Your task to perform on an android device: open sync settings in chrome Image 0: 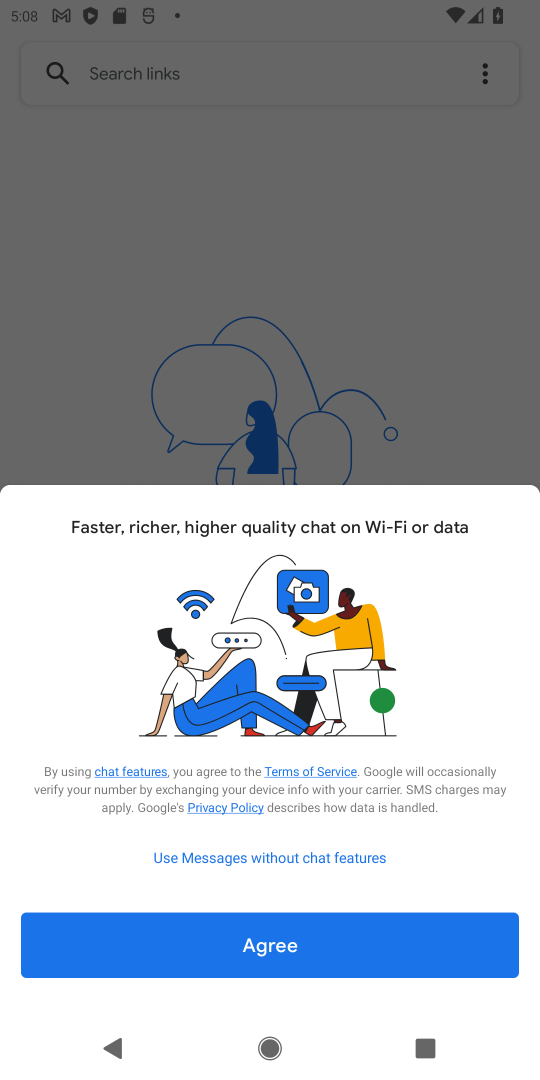
Step 0: press home button
Your task to perform on an android device: open sync settings in chrome Image 1: 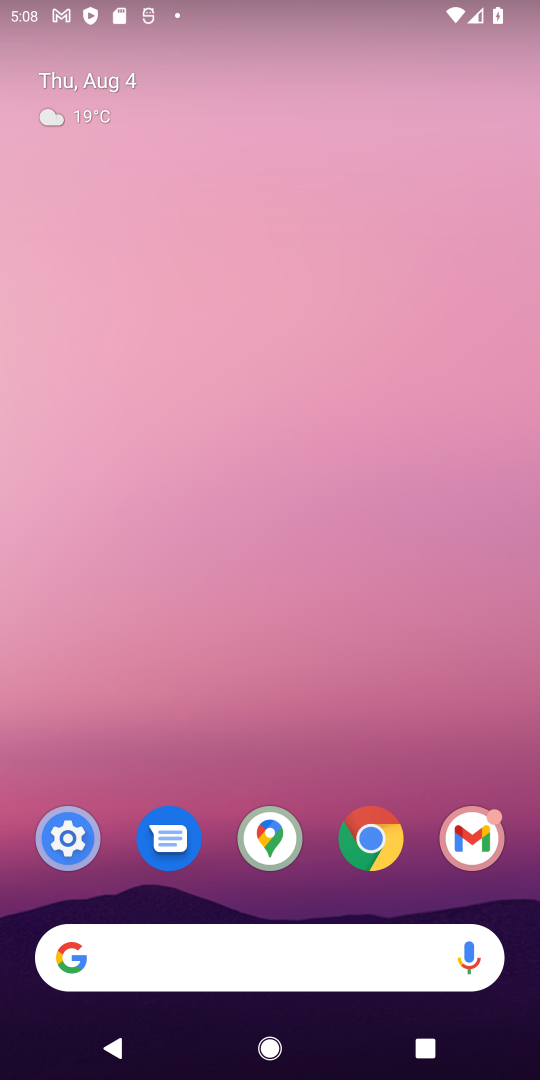
Step 1: drag from (246, 820) to (339, 38)
Your task to perform on an android device: open sync settings in chrome Image 2: 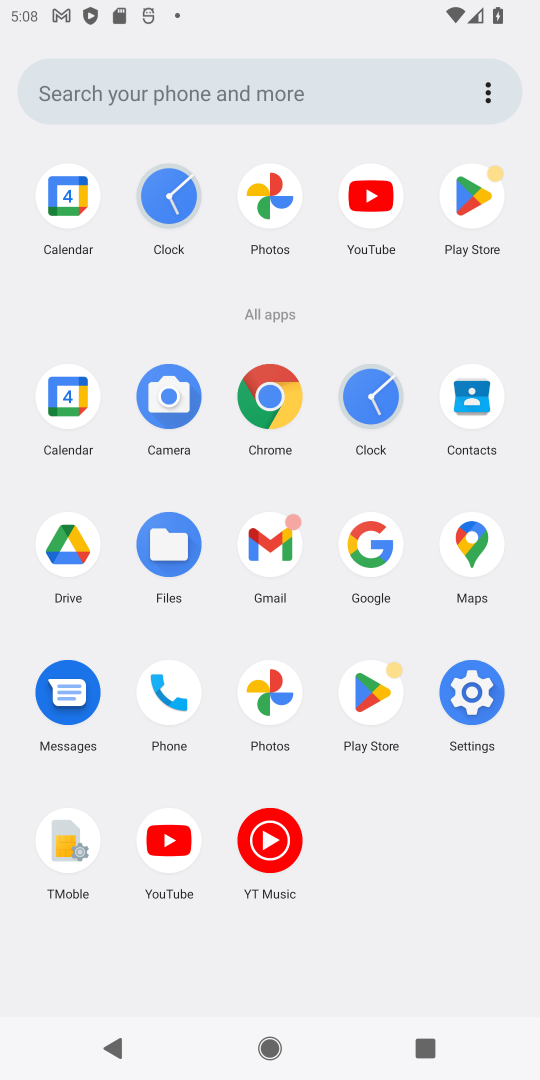
Step 2: click (263, 431)
Your task to perform on an android device: open sync settings in chrome Image 3: 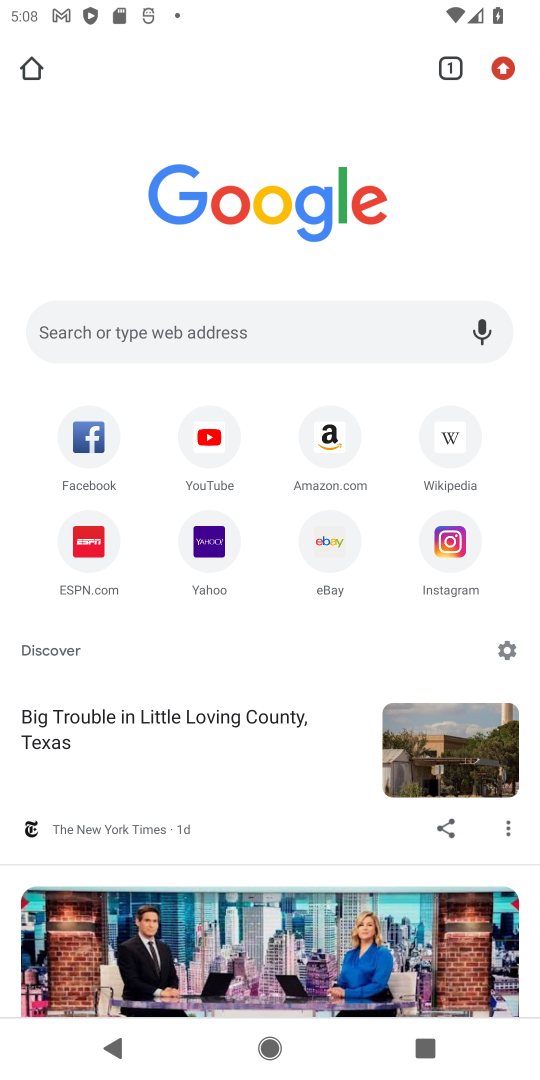
Step 3: drag from (501, 71) to (300, 712)
Your task to perform on an android device: open sync settings in chrome Image 4: 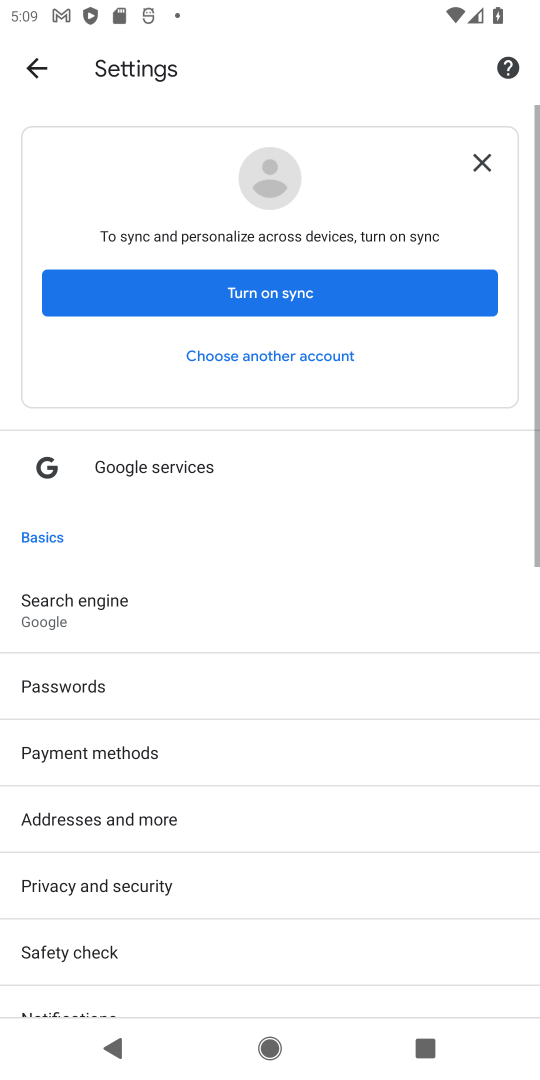
Step 4: drag from (203, 845) to (305, 215)
Your task to perform on an android device: open sync settings in chrome Image 5: 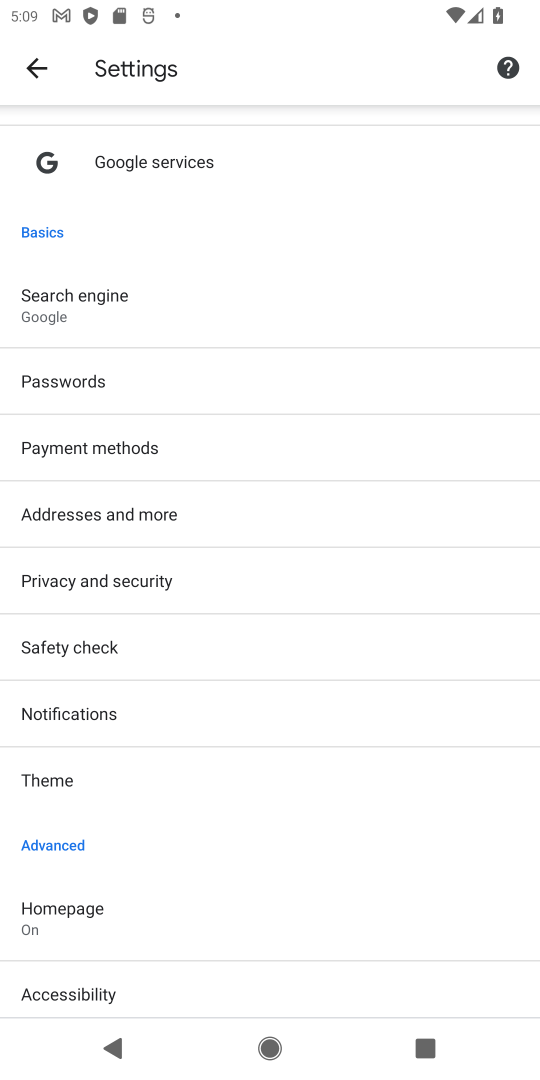
Step 5: drag from (146, 925) to (303, 306)
Your task to perform on an android device: open sync settings in chrome Image 6: 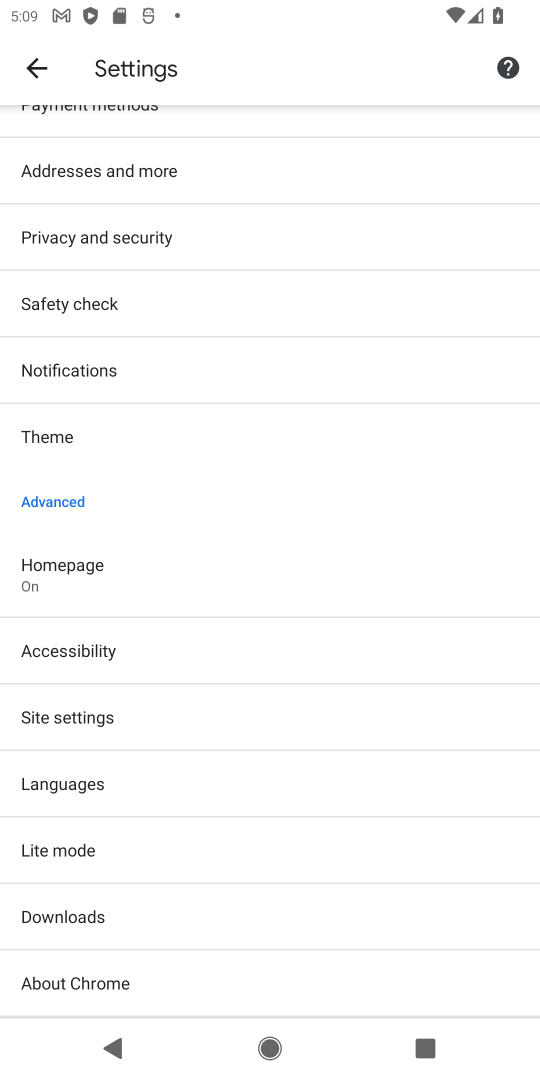
Step 6: click (116, 714)
Your task to perform on an android device: open sync settings in chrome Image 7: 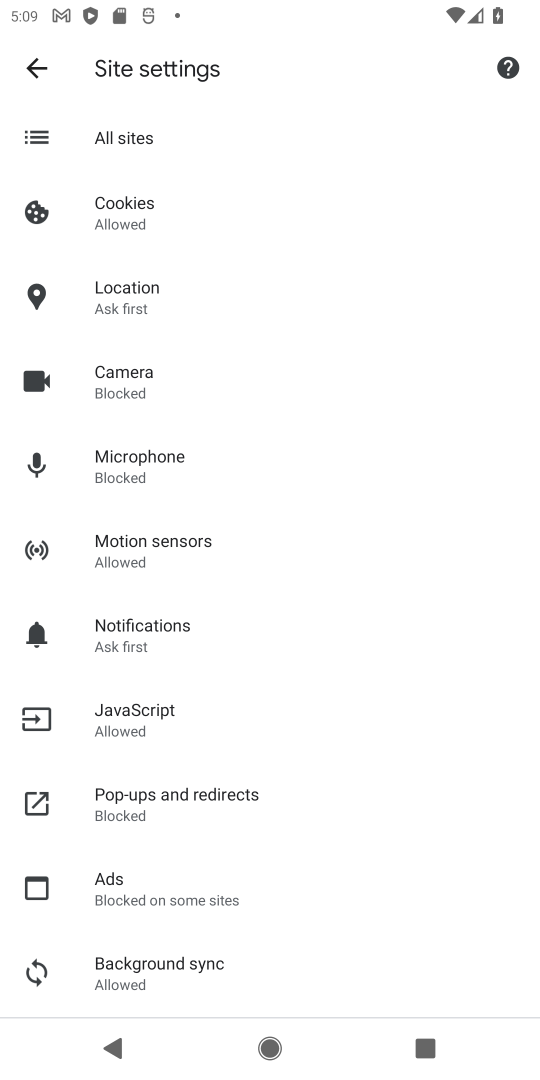
Step 7: drag from (115, 898) to (151, 421)
Your task to perform on an android device: open sync settings in chrome Image 8: 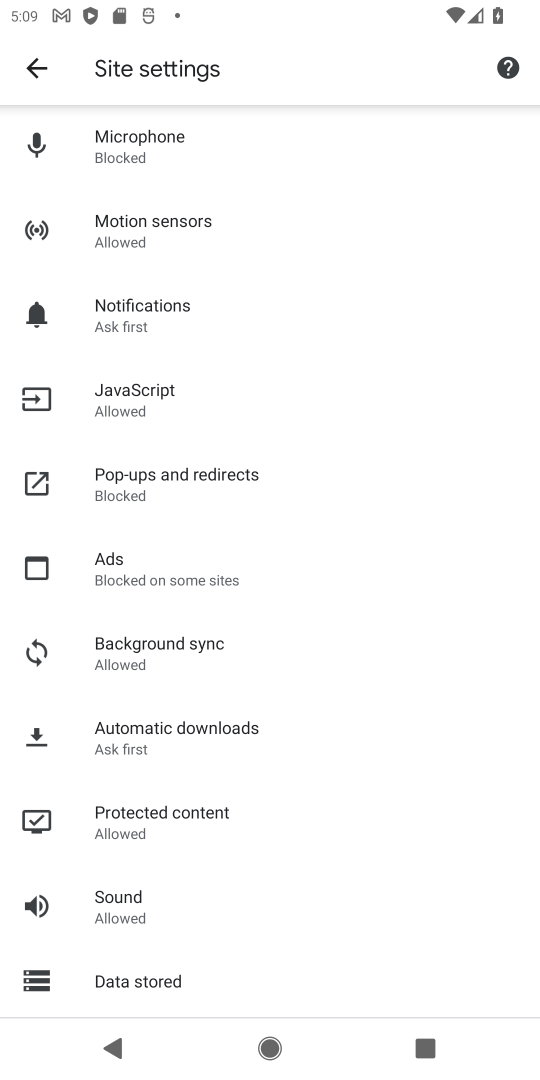
Step 8: click (161, 656)
Your task to perform on an android device: open sync settings in chrome Image 9: 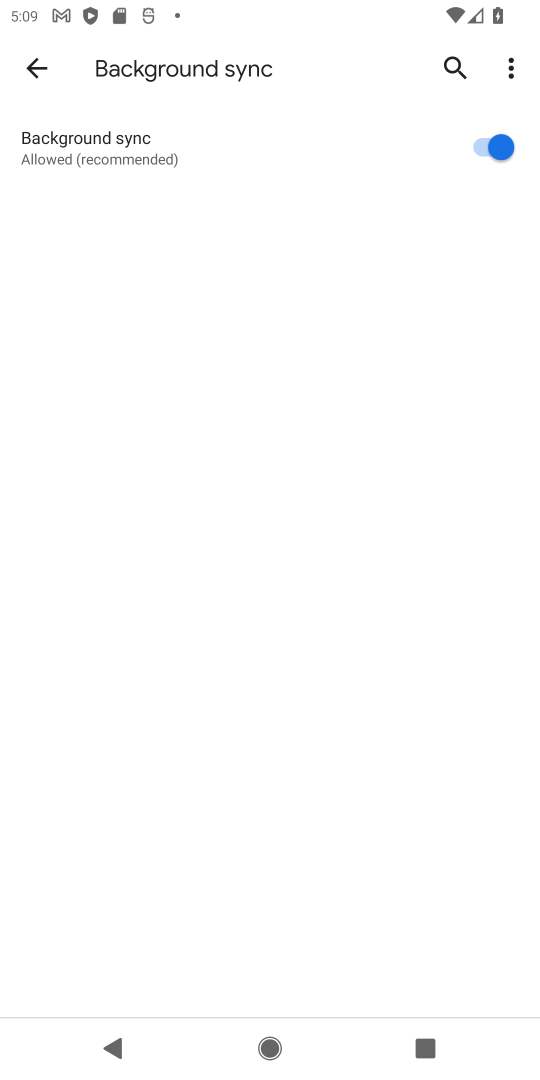
Step 9: task complete